Your task to perform on an android device: Open the calendar app, open the side menu, and click the "Day" option Image 0: 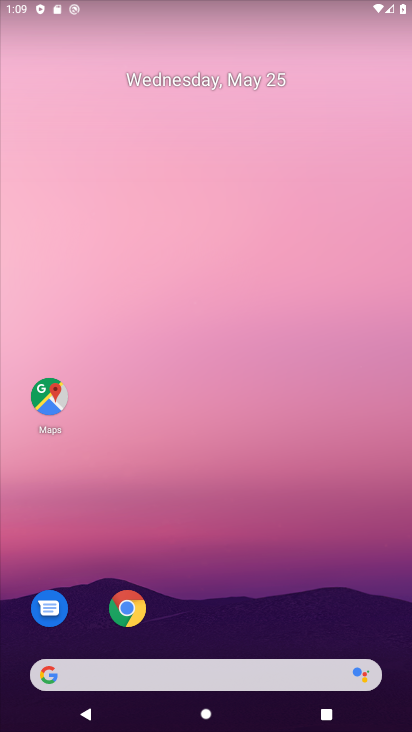
Step 0: drag from (168, 682) to (157, 10)
Your task to perform on an android device: Open the calendar app, open the side menu, and click the "Day" option Image 1: 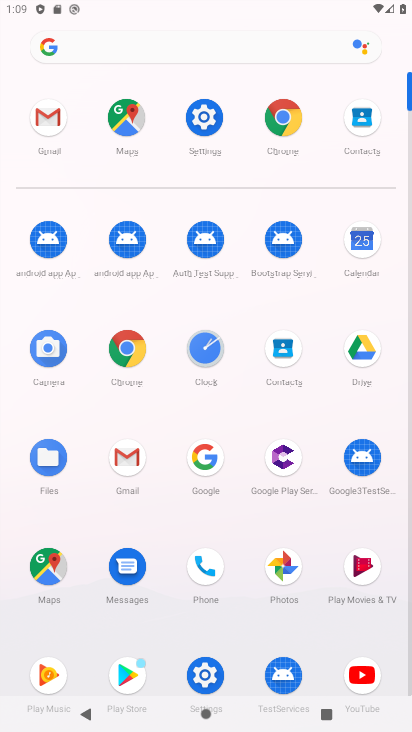
Step 1: click (356, 244)
Your task to perform on an android device: Open the calendar app, open the side menu, and click the "Day" option Image 2: 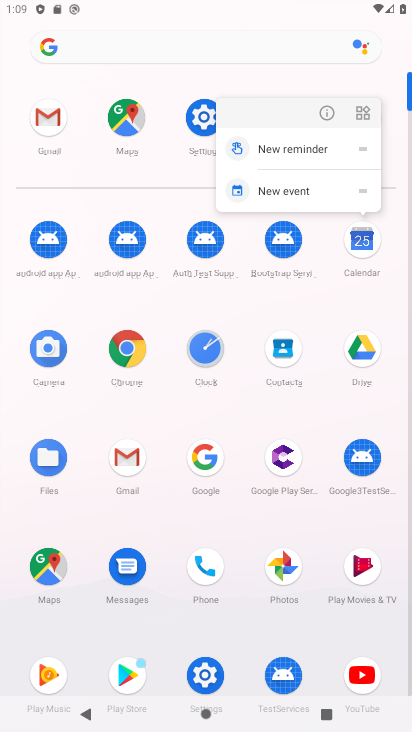
Step 2: click (370, 248)
Your task to perform on an android device: Open the calendar app, open the side menu, and click the "Day" option Image 3: 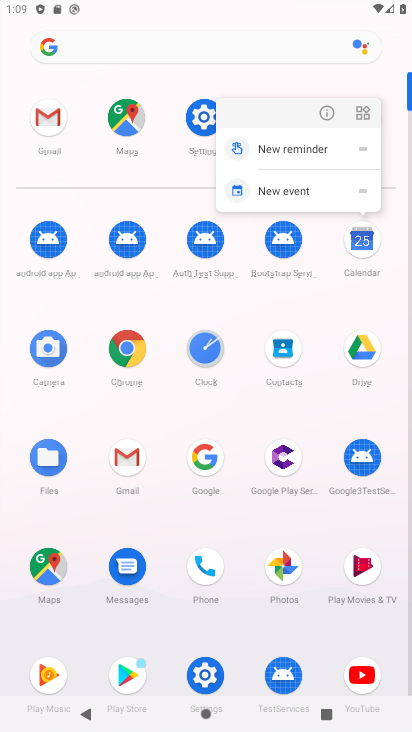
Step 3: click (355, 243)
Your task to perform on an android device: Open the calendar app, open the side menu, and click the "Day" option Image 4: 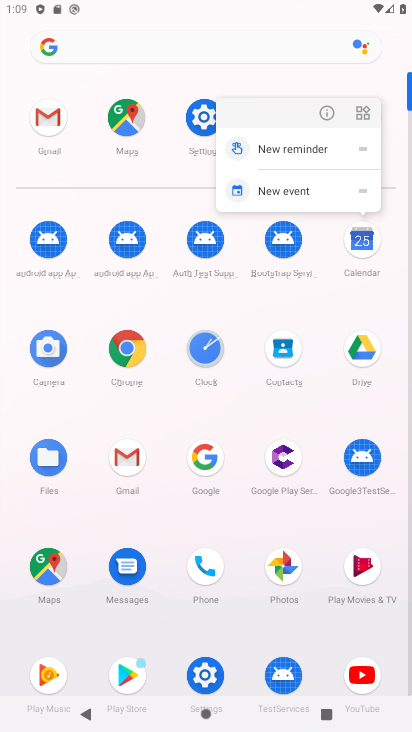
Step 4: click (355, 243)
Your task to perform on an android device: Open the calendar app, open the side menu, and click the "Day" option Image 5: 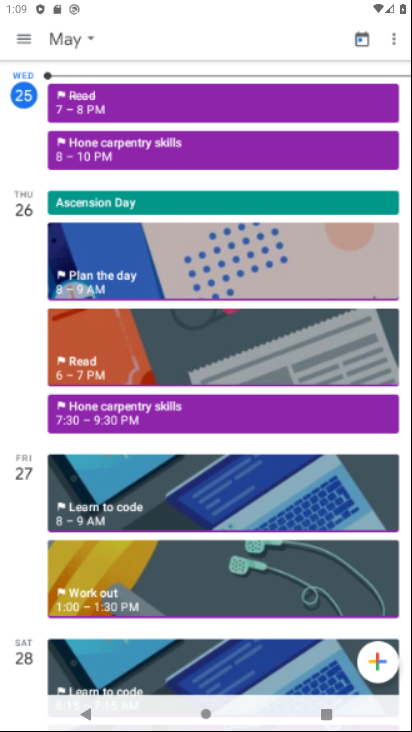
Step 5: click (26, 33)
Your task to perform on an android device: Open the calendar app, open the side menu, and click the "Day" option Image 6: 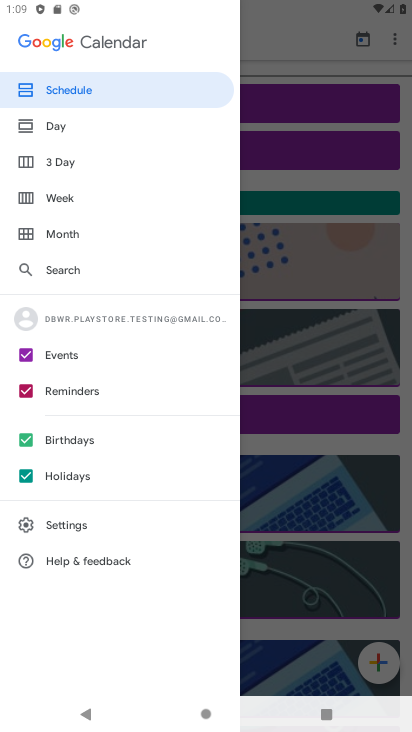
Step 6: click (57, 136)
Your task to perform on an android device: Open the calendar app, open the side menu, and click the "Day" option Image 7: 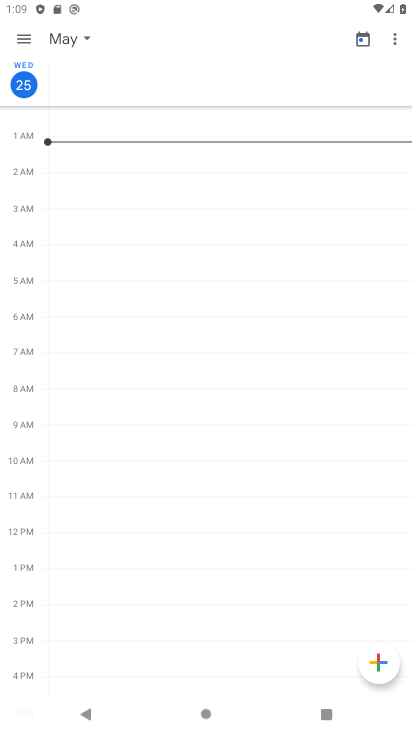
Step 7: task complete